Your task to perform on an android device: change the upload size in google photos Image 0: 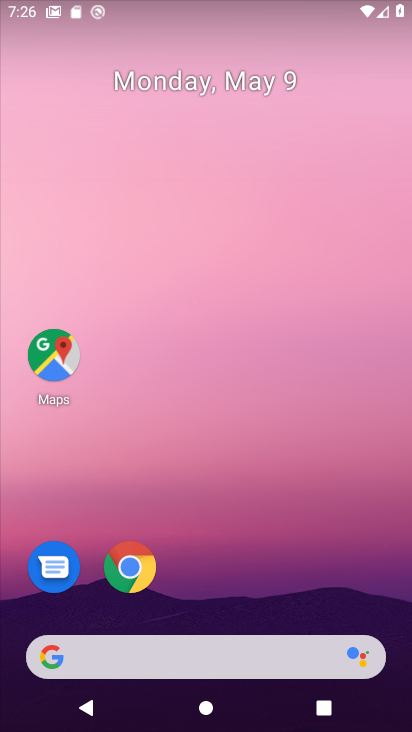
Step 0: drag from (225, 610) to (303, 309)
Your task to perform on an android device: change the upload size in google photos Image 1: 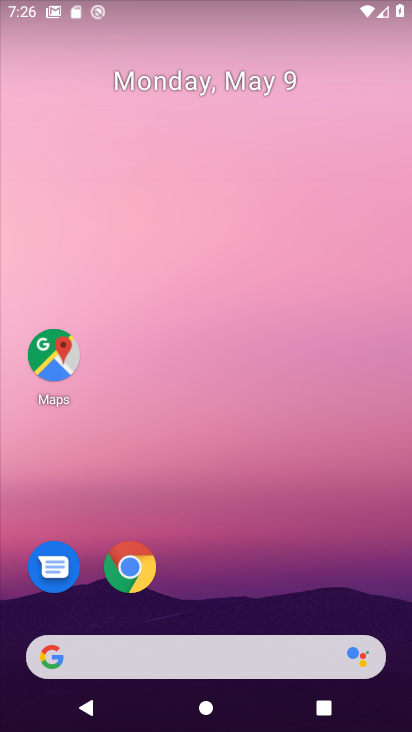
Step 1: drag from (224, 633) to (256, 346)
Your task to perform on an android device: change the upload size in google photos Image 2: 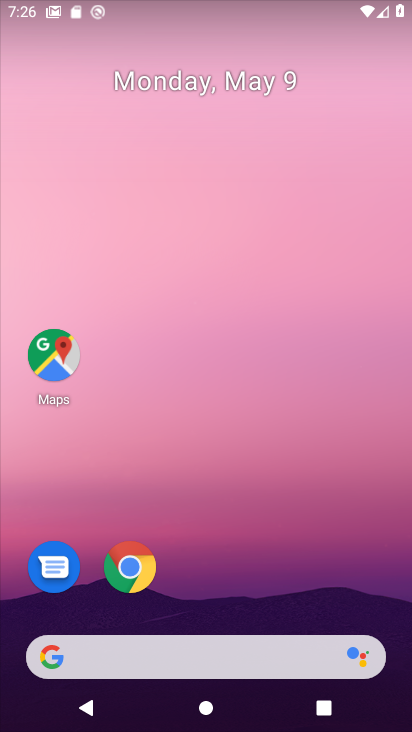
Step 2: drag from (197, 602) to (279, 217)
Your task to perform on an android device: change the upload size in google photos Image 3: 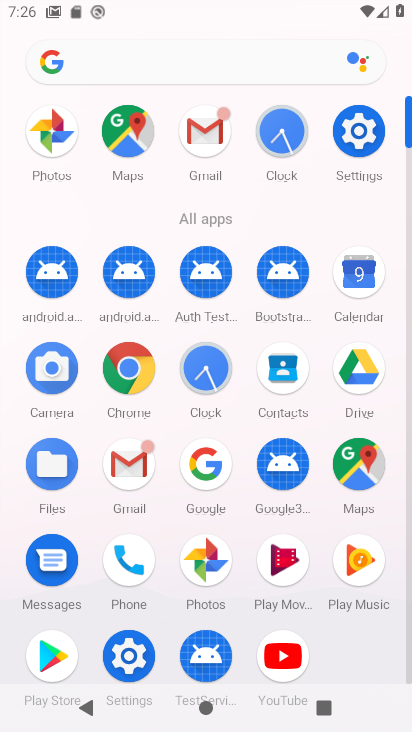
Step 3: drag from (249, 660) to (242, 222)
Your task to perform on an android device: change the upload size in google photos Image 4: 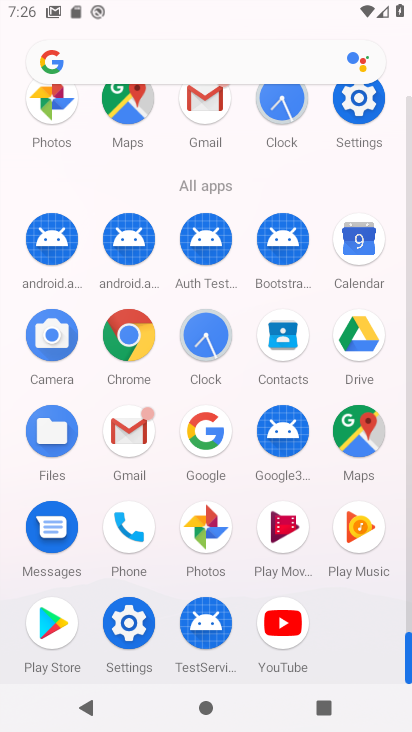
Step 4: click (198, 526)
Your task to perform on an android device: change the upload size in google photos Image 5: 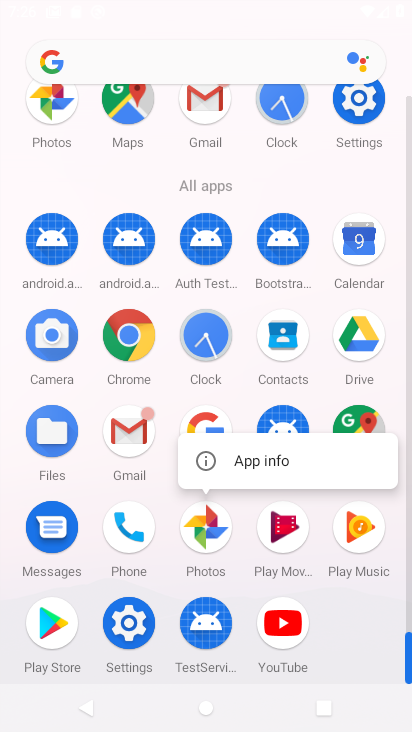
Step 5: click (267, 461)
Your task to perform on an android device: change the upload size in google photos Image 6: 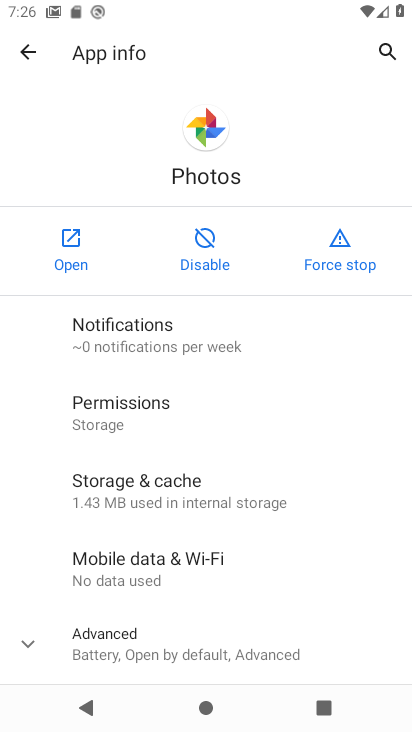
Step 6: click (85, 255)
Your task to perform on an android device: change the upload size in google photos Image 7: 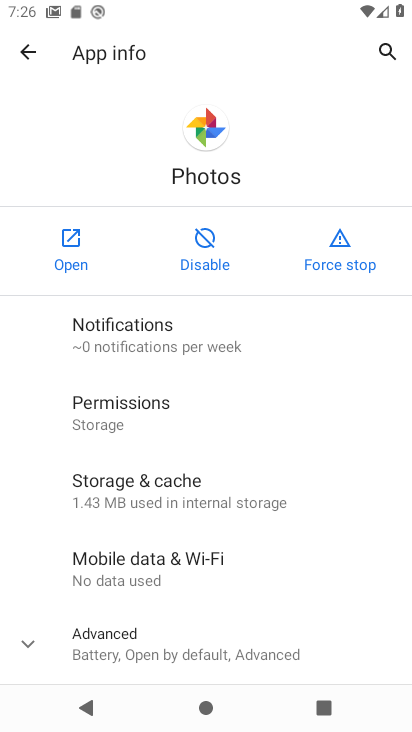
Step 7: click (85, 255)
Your task to perform on an android device: change the upload size in google photos Image 8: 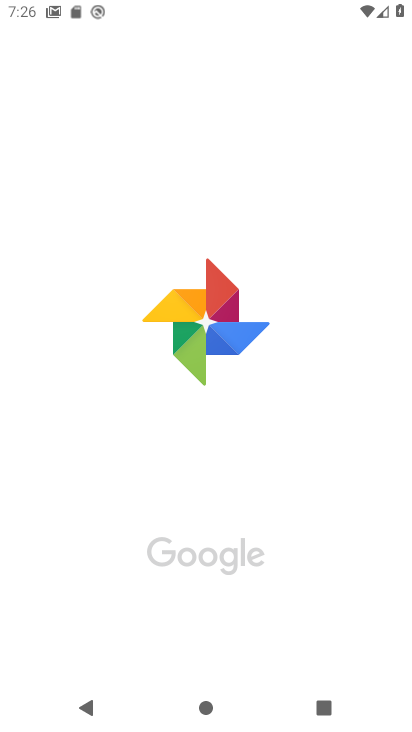
Step 8: click (68, 241)
Your task to perform on an android device: change the upload size in google photos Image 9: 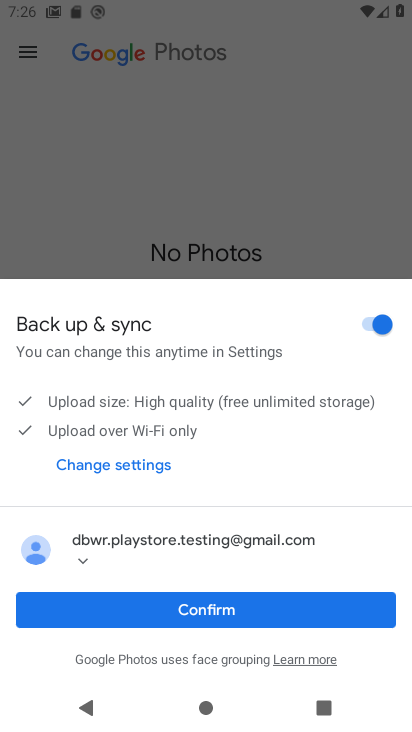
Step 9: click (165, 612)
Your task to perform on an android device: change the upload size in google photos Image 10: 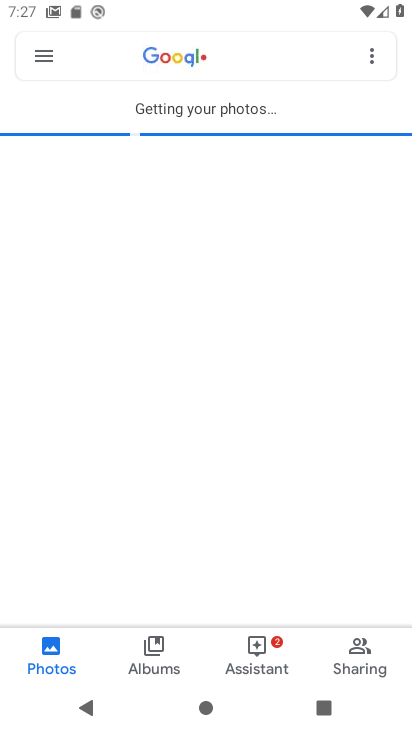
Step 10: click (51, 69)
Your task to perform on an android device: change the upload size in google photos Image 11: 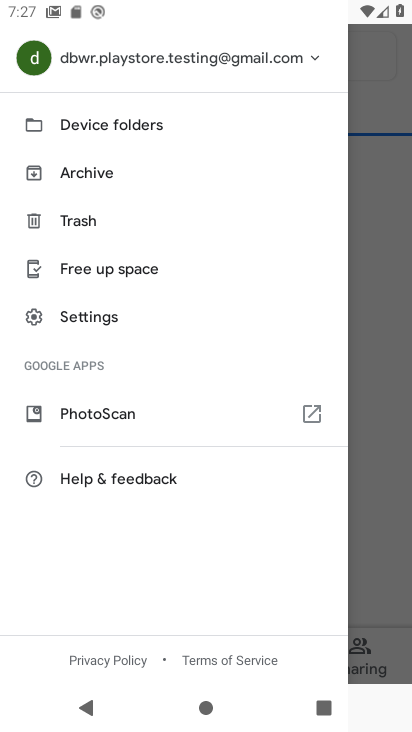
Step 11: click (109, 321)
Your task to perform on an android device: change the upload size in google photos Image 12: 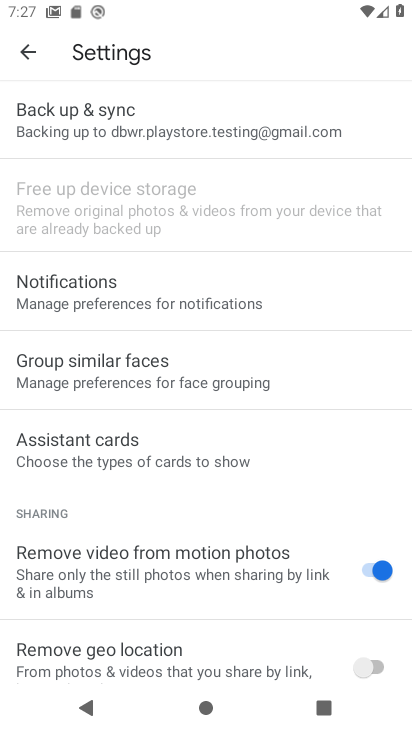
Step 12: click (200, 115)
Your task to perform on an android device: change the upload size in google photos Image 13: 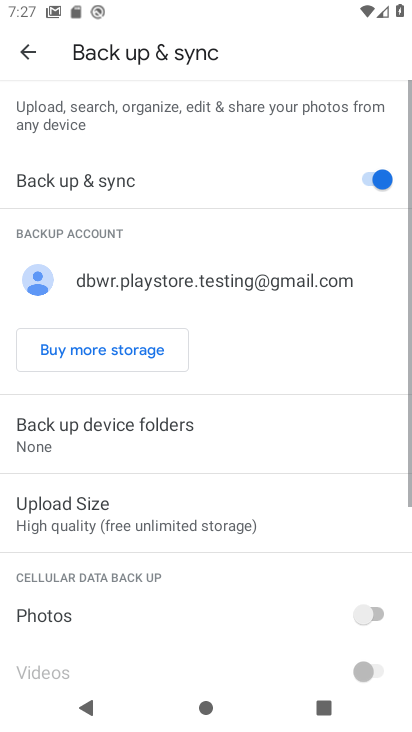
Step 13: drag from (232, 467) to (269, 215)
Your task to perform on an android device: change the upload size in google photos Image 14: 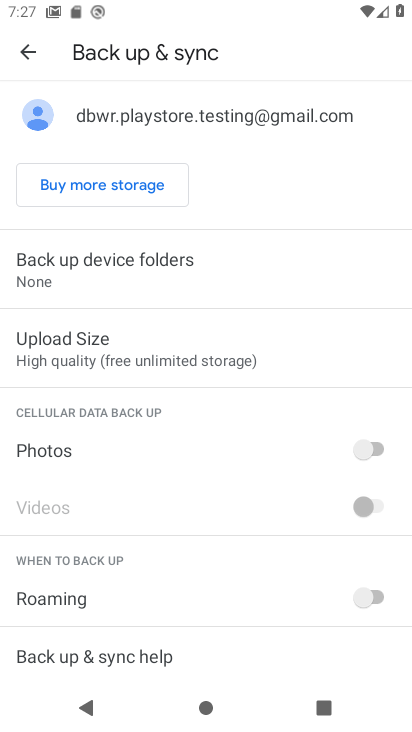
Step 14: click (137, 342)
Your task to perform on an android device: change the upload size in google photos Image 15: 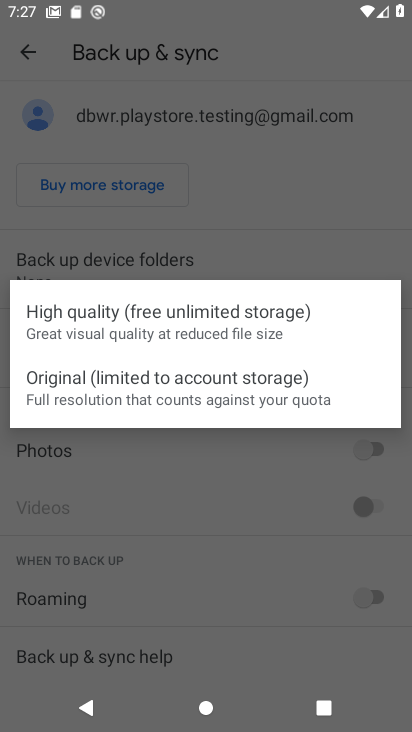
Step 15: click (231, 314)
Your task to perform on an android device: change the upload size in google photos Image 16: 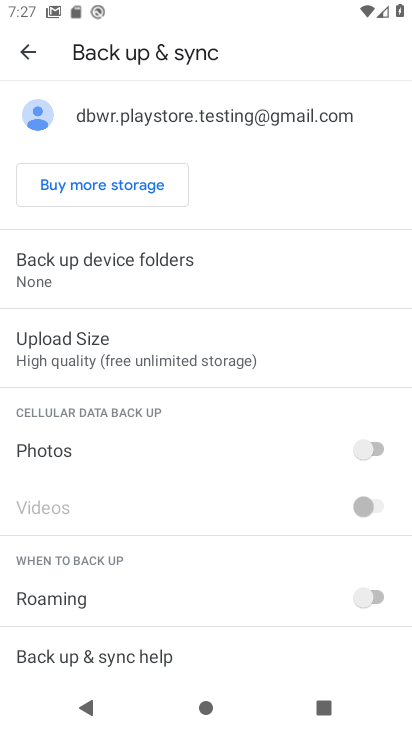
Step 16: task complete